Your task to perform on an android device: Open location settings Image 0: 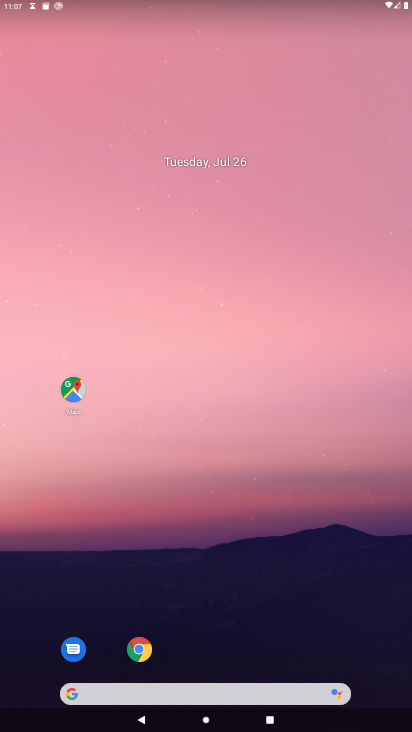
Step 0: drag from (237, 636) to (18, 5)
Your task to perform on an android device: Open location settings Image 1: 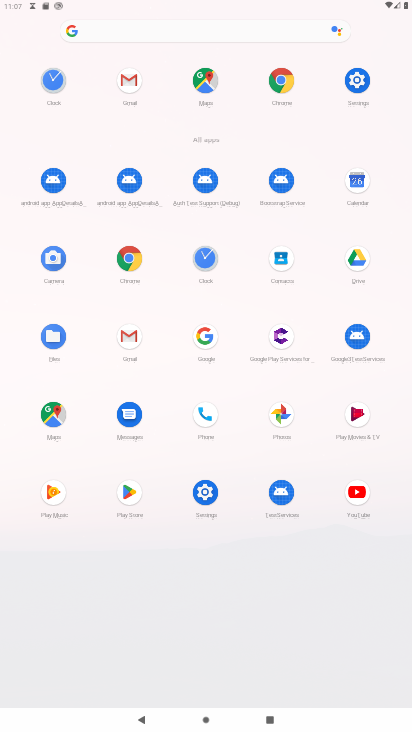
Step 1: click (195, 502)
Your task to perform on an android device: Open location settings Image 2: 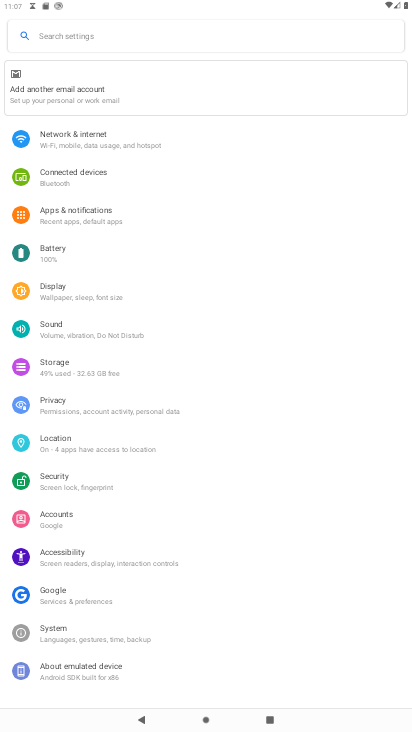
Step 2: click (84, 449)
Your task to perform on an android device: Open location settings Image 3: 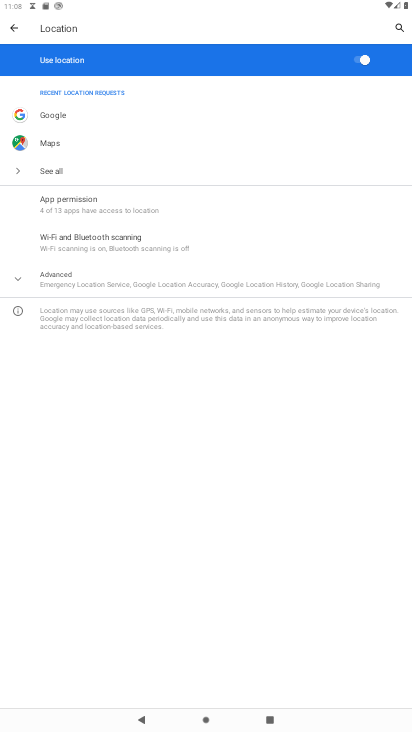
Step 3: task complete